Your task to perform on an android device: change your default location settings in chrome Image 0: 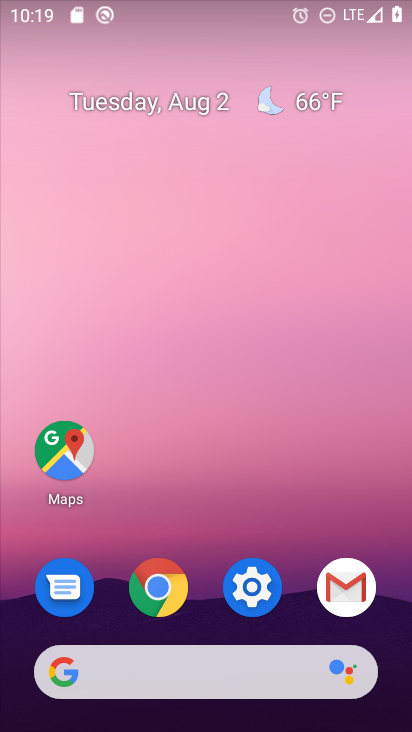
Step 0: press home button
Your task to perform on an android device: change your default location settings in chrome Image 1: 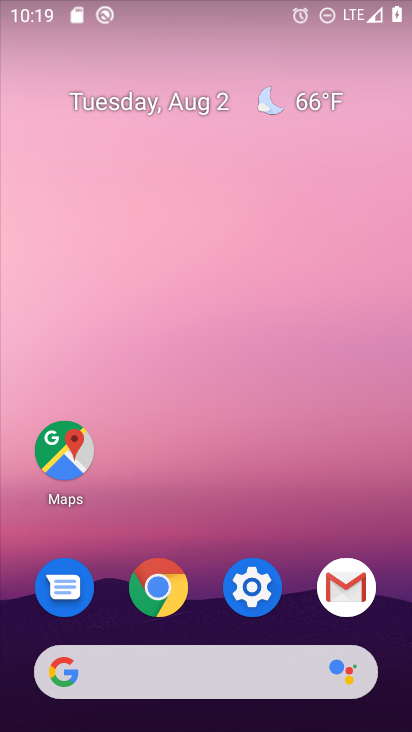
Step 1: click (146, 598)
Your task to perform on an android device: change your default location settings in chrome Image 2: 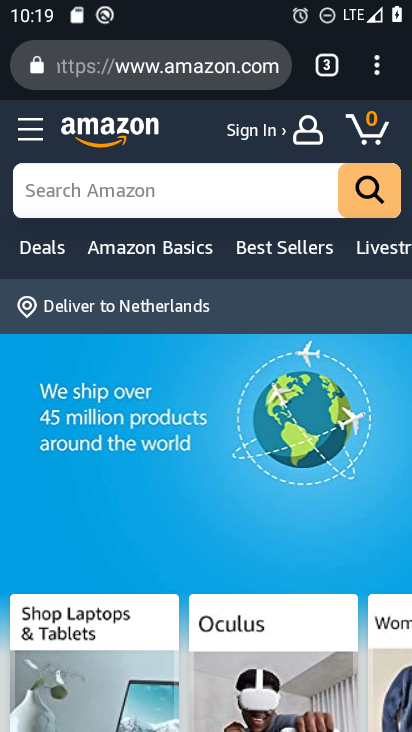
Step 2: click (374, 79)
Your task to perform on an android device: change your default location settings in chrome Image 3: 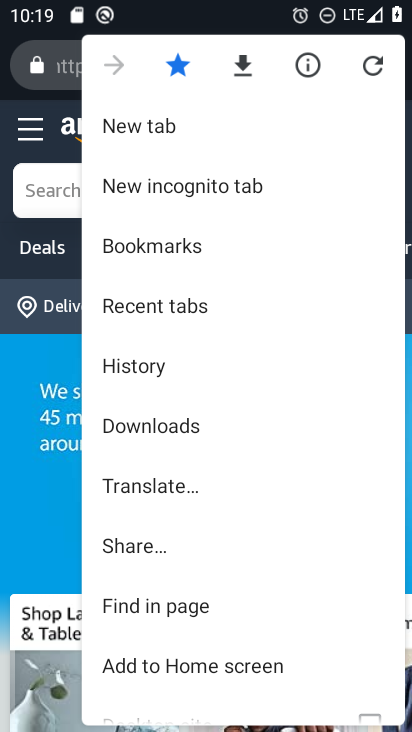
Step 3: drag from (186, 631) to (187, 394)
Your task to perform on an android device: change your default location settings in chrome Image 4: 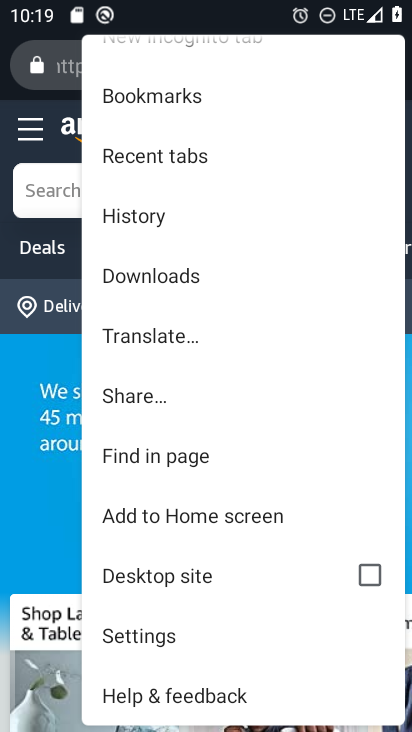
Step 4: click (181, 635)
Your task to perform on an android device: change your default location settings in chrome Image 5: 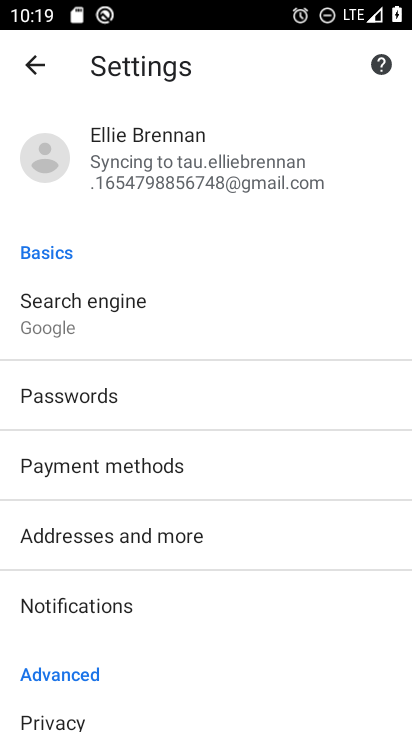
Step 5: drag from (152, 650) to (134, 481)
Your task to perform on an android device: change your default location settings in chrome Image 6: 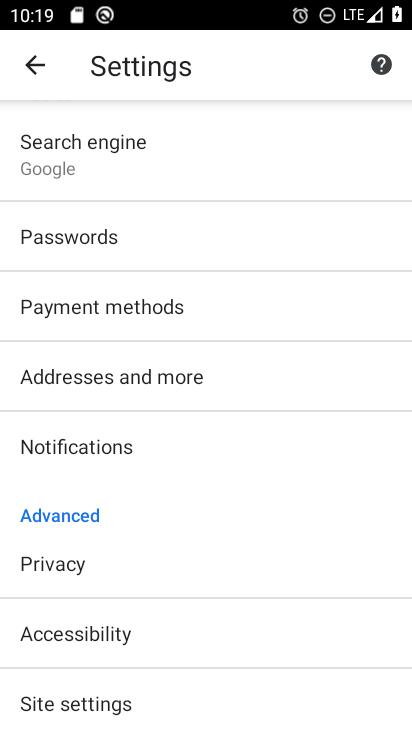
Step 6: click (105, 699)
Your task to perform on an android device: change your default location settings in chrome Image 7: 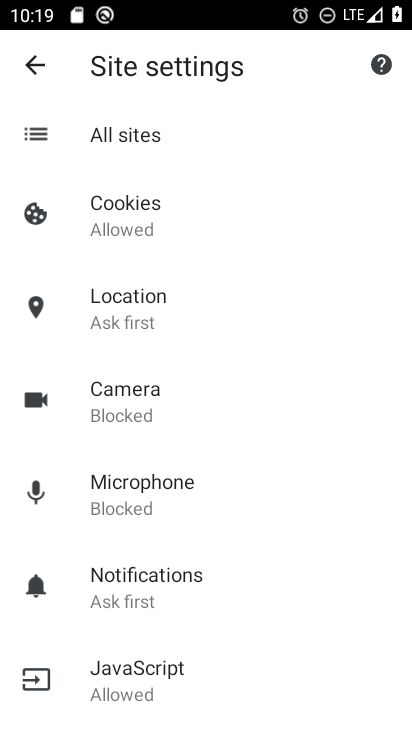
Step 7: click (124, 334)
Your task to perform on an android device: change your default location settings in chrome Image 8: 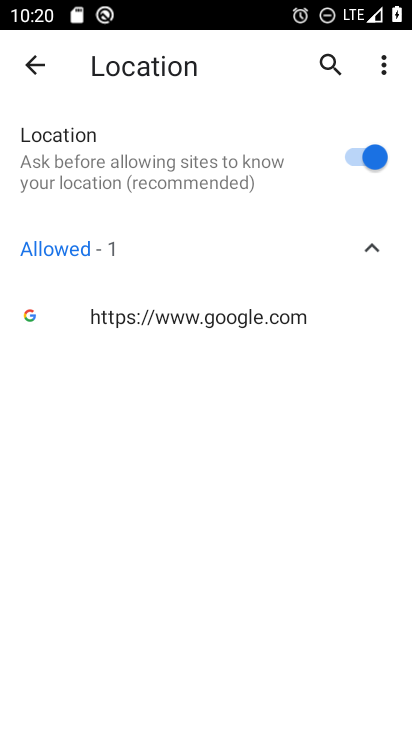
Step 8: click (354, 162)
Your task to perform on an android device: change your default location settings in chrome Image 9: 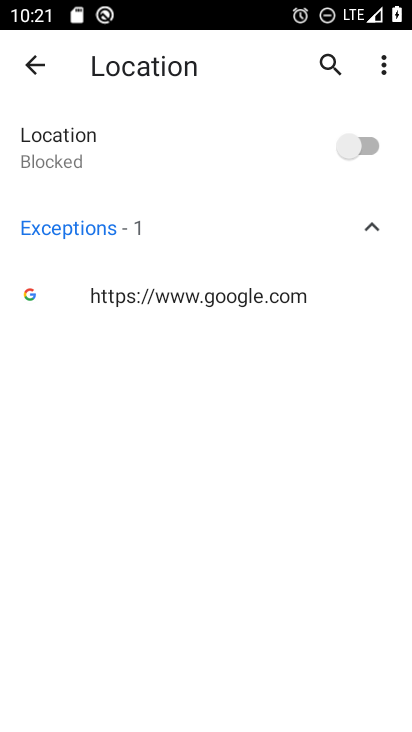
Step 9: task complete